Your task to perform on an android device: Open Google Maps Image 0: 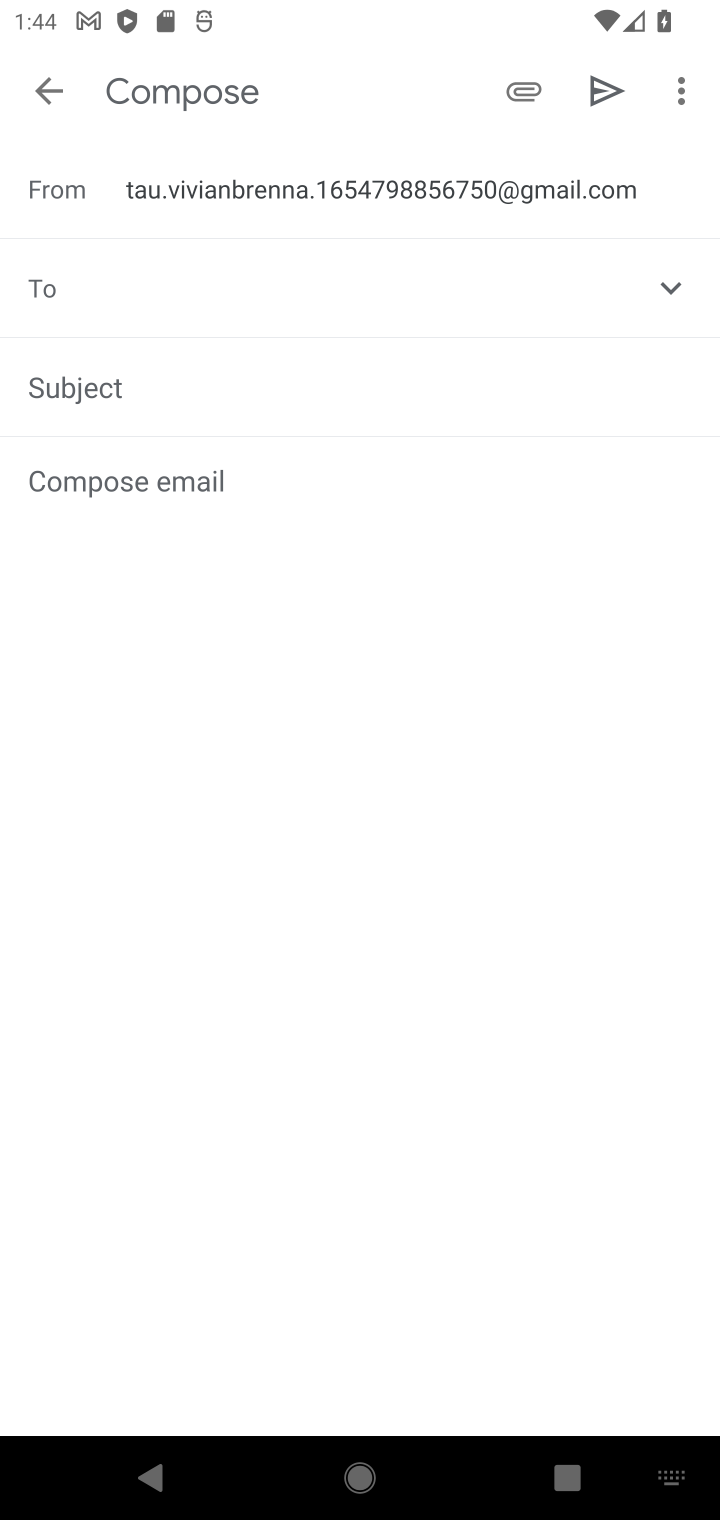
Step 0: press home button
Your task to perform on an android device: Open Google Maps Image 1: 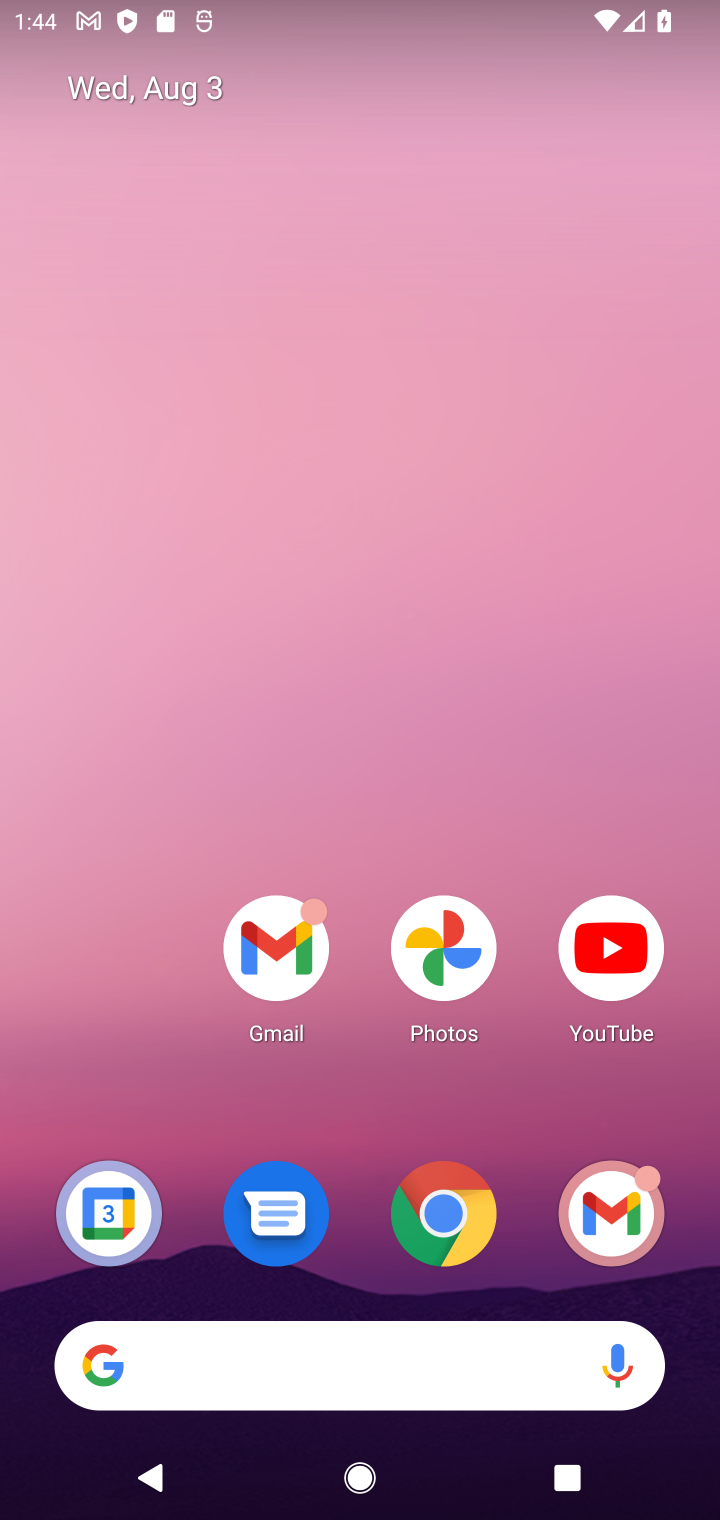
Step 1: drag from (429, 1140) to (530, 9)
Your task to perform on an android device: Open Google Maps Image 2: 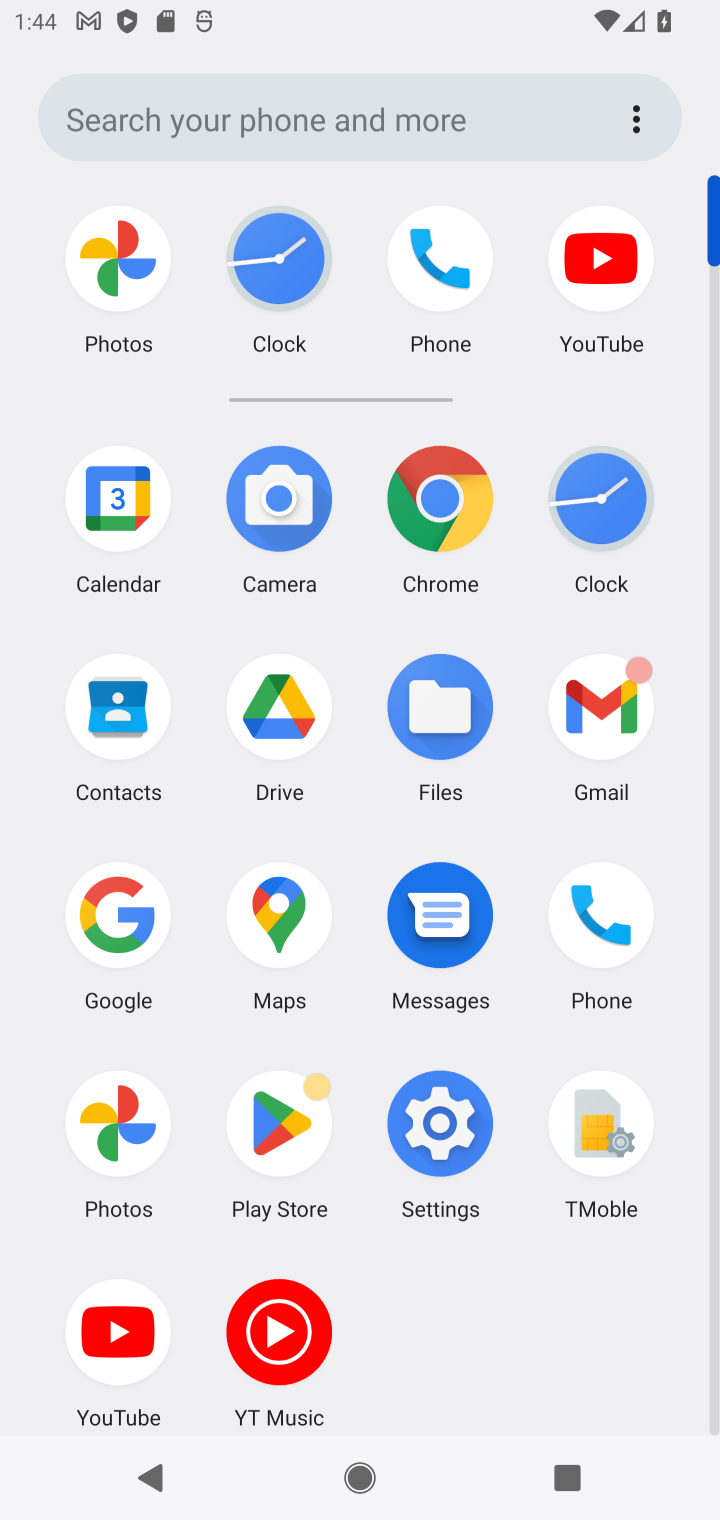
Step 2: click (281, 938)
Your task to perform on an android device: Open Google Maps Image 3: 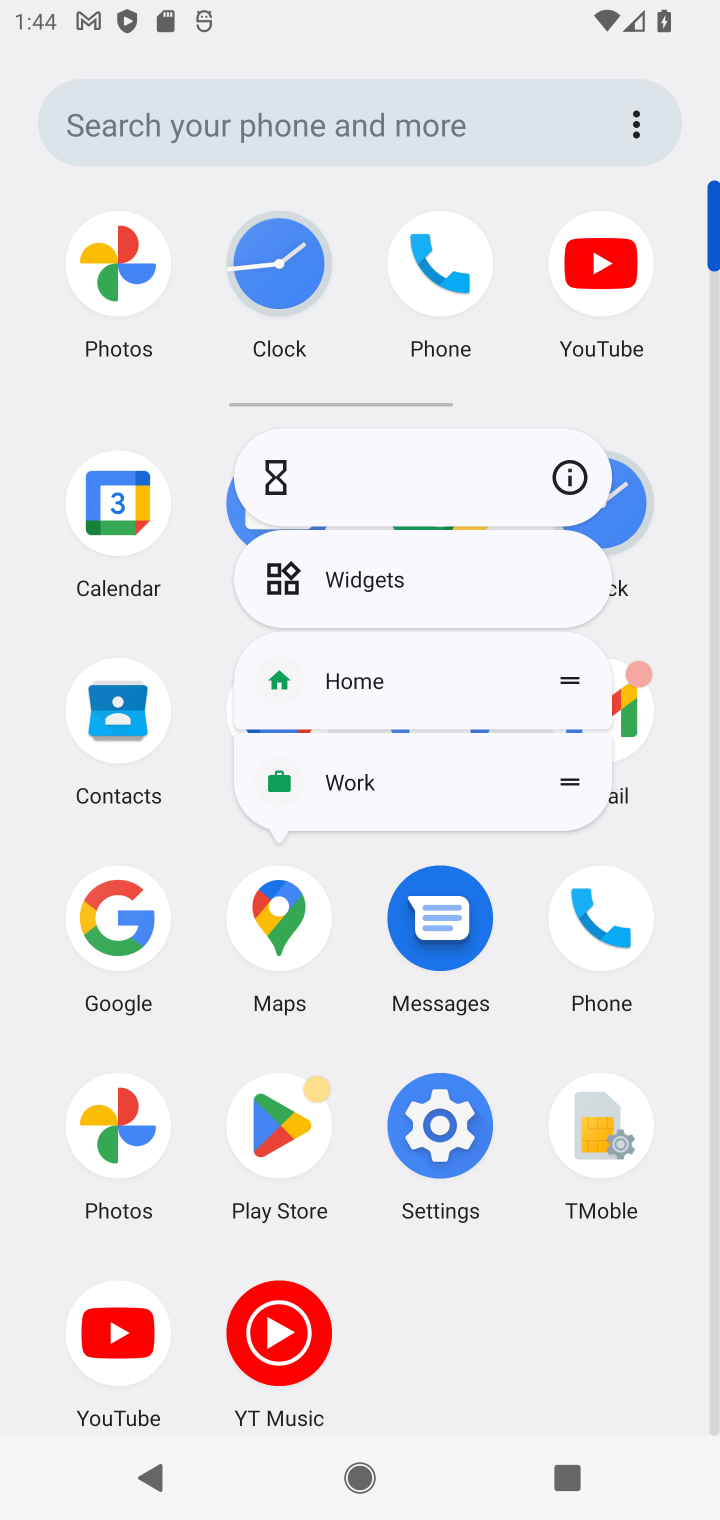
Step 3: click (282, 936)
Your task to perform on an android device: Open Google Maps Image 4: 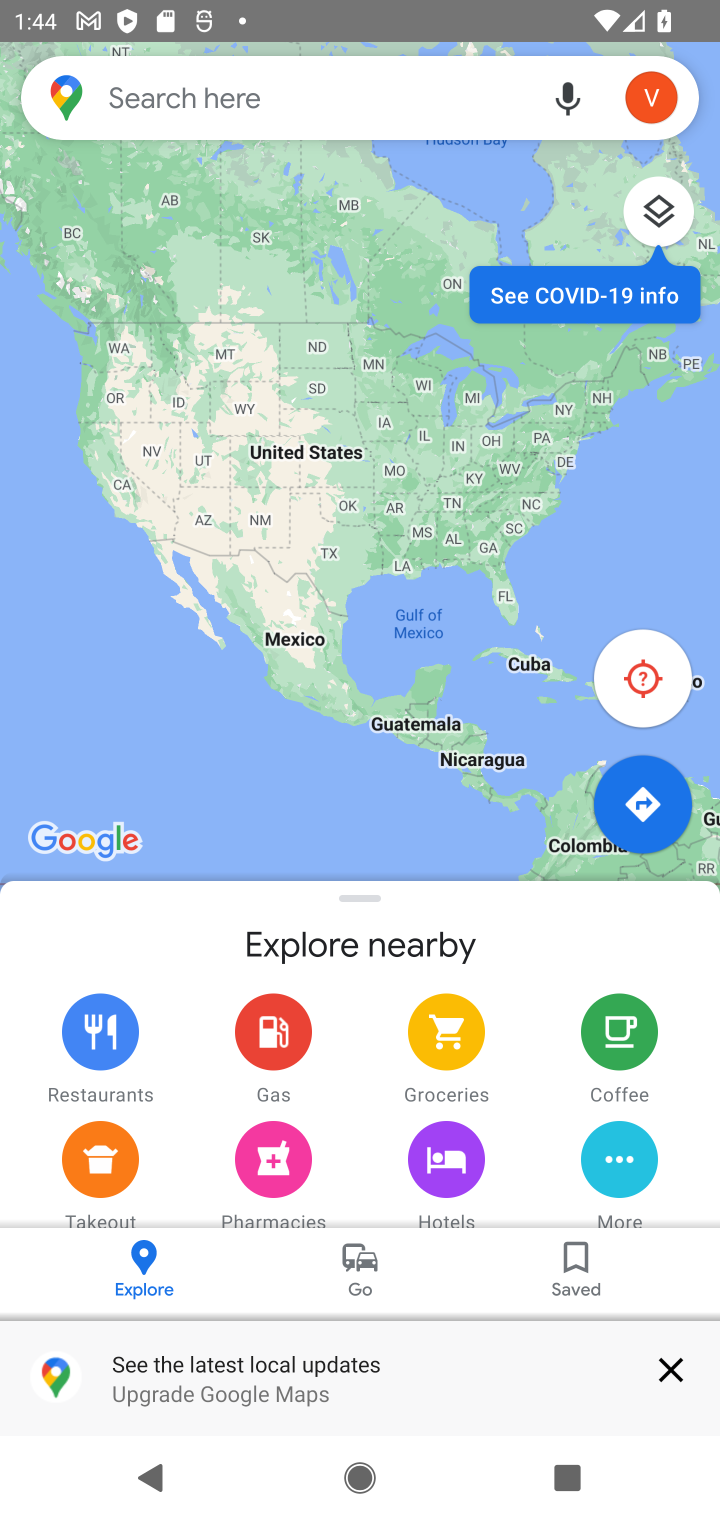
Step 4: task complete